Your task to perform on an android device: Go to ESPN.com Image 0: 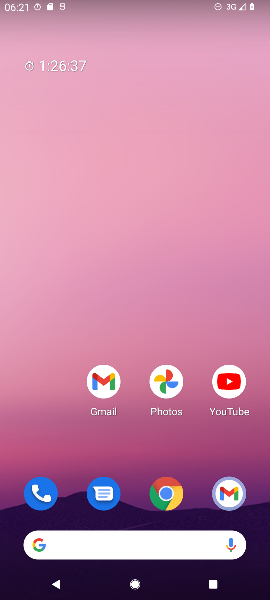
Step 0: press home button
Your task to perform on an android device: Go to ESPN.com Image 1: 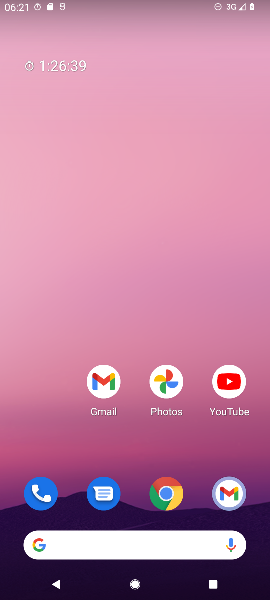
Step 1: drag from (64, 464) to (67, 98)
Your task to perform on an android device: Go to ESPN.com Image 2: 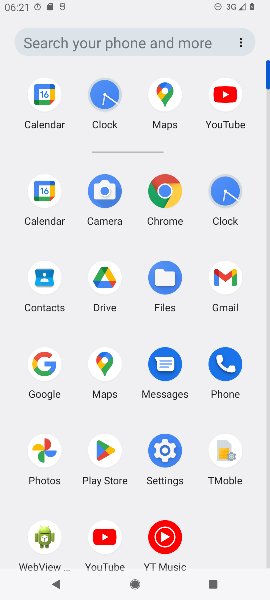
Step 2: click (169, 190)
Your task to perform on an android device: Go to ESPN.com Image 3: 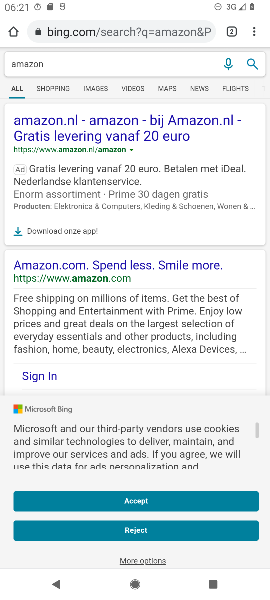
Step 3: click (168, 29)
Your task to perform on an android device: Go to ESPN.com Image 4: 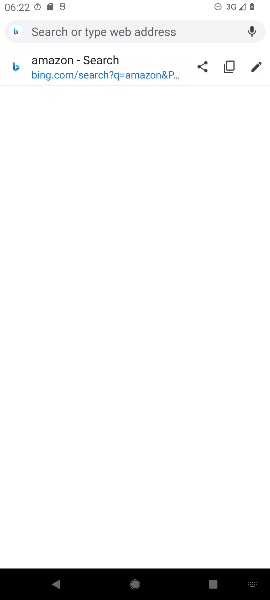
Step 4: type "espn.com"
Your task to perform on an android device: Go to ESPN.com Image 5: 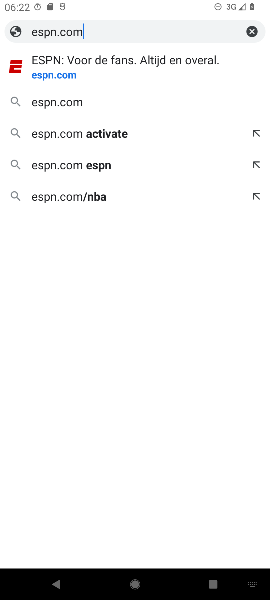
Step 5: click (137, 73)
Your task to perform on an android device: Go to ESPN.com Image 6: 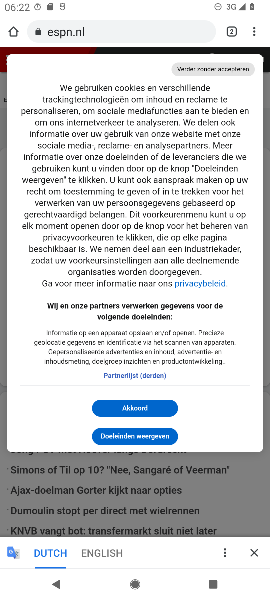
Step 6: task complete